Your task to perform on an android device: set an alarm Image 0: 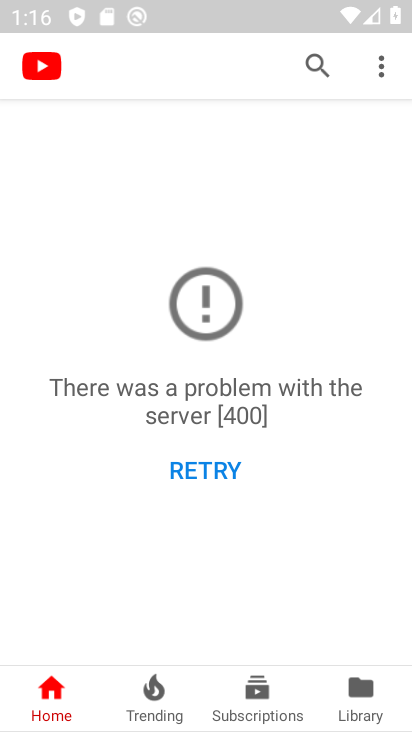
Step 0: press home button
Your task to perform on an android device: set an alarm Image 1: 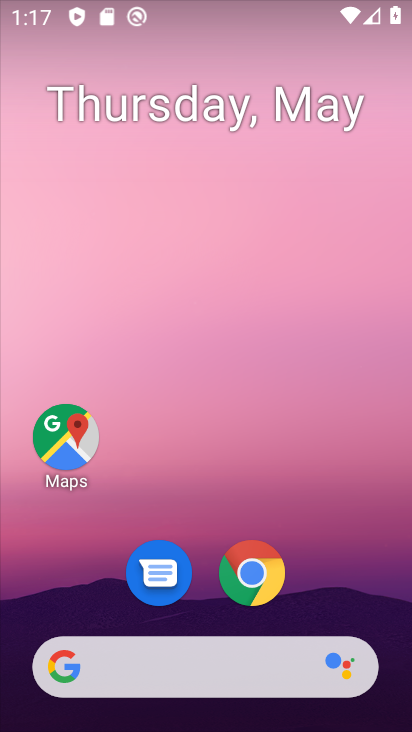
Step 1: drag from (396, 623) to (384, 347)
Your task to perform on an android device: set an alarm Image 2: 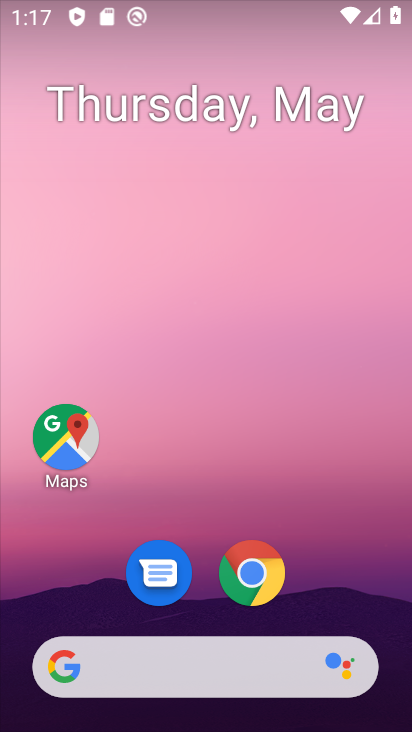
Step 2: click (391, 689)
Your task to perform on an android device: set an alarm Image 3: 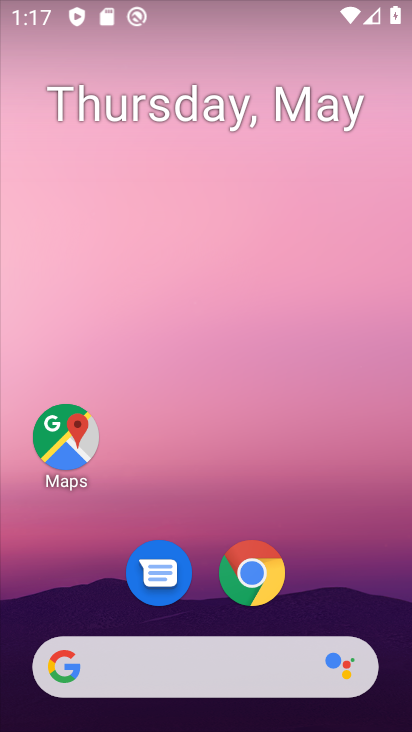
Step 3: drag from (383, 612) to (296, 213)
Your task to perform on an android device: set an alarm Image 4: 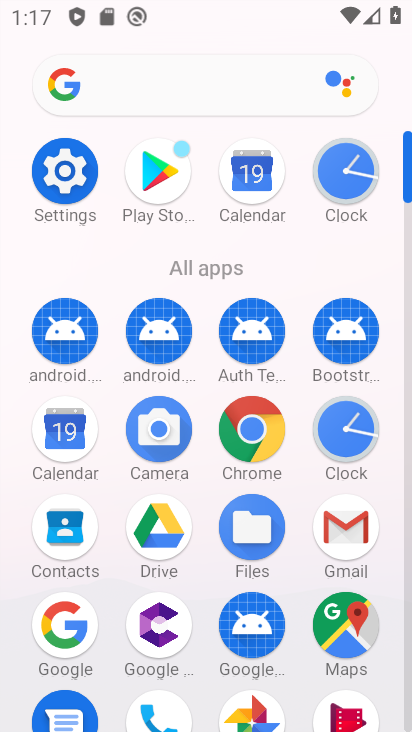
Step 4: click (360, 425)
Your task to perform on an android device: set an alarm Image 5: 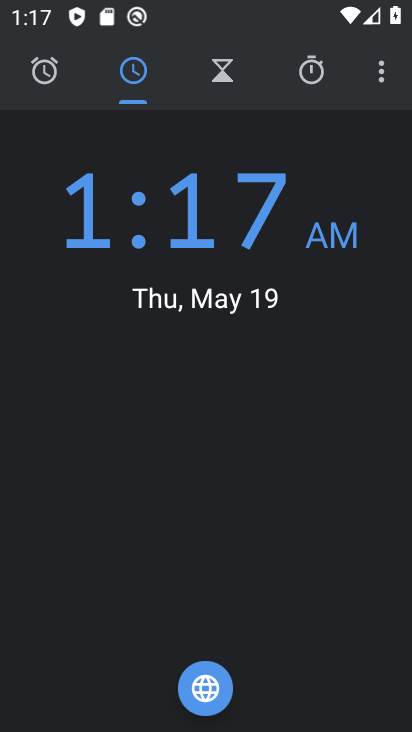
Step 5: click (31, 84)
Your task to perform on an android device: set an alarm Image 6: 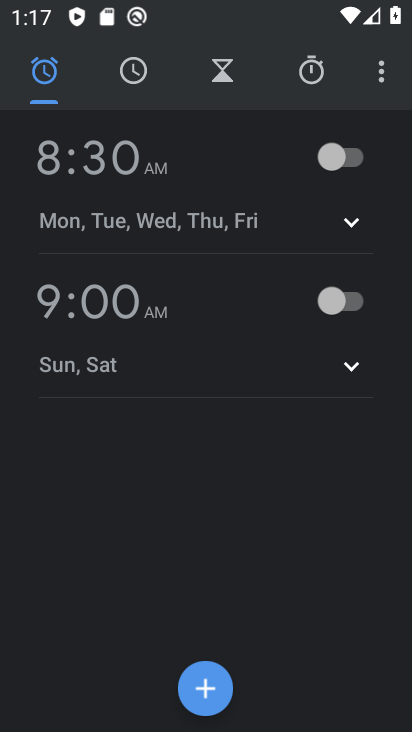
Step 6: click (357, 154)
Your task to perform on an android device: set an alarm Image 7: 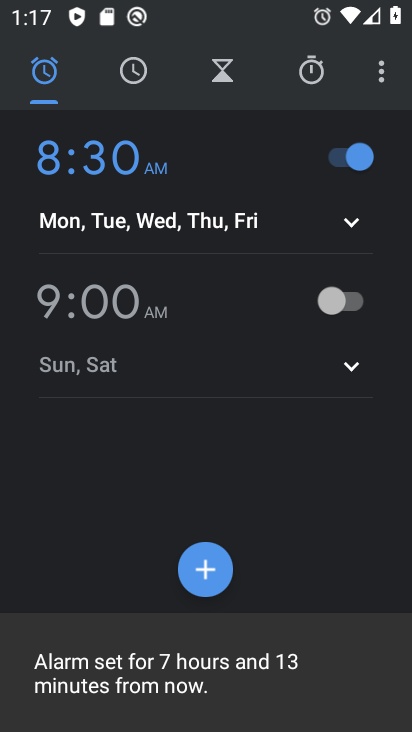
Step 7: task complete